Your task to perform on an android device: toggle pop-ups in chrome Image 0: 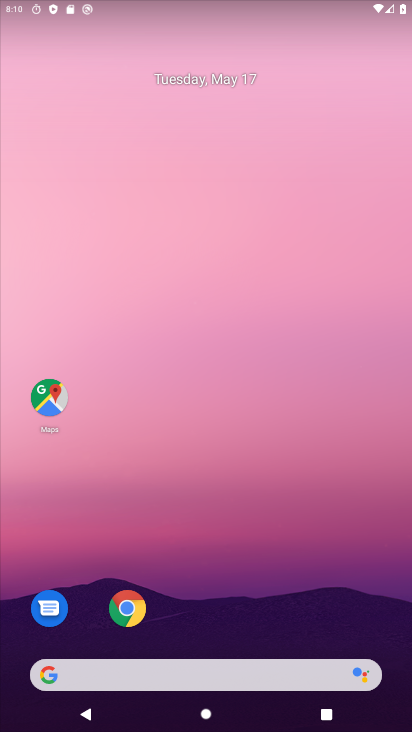
Step 0: drag from (307, 539) to (259, 127)
Your task to perform on an android device: toggle pop-ups in chrome Image 1: 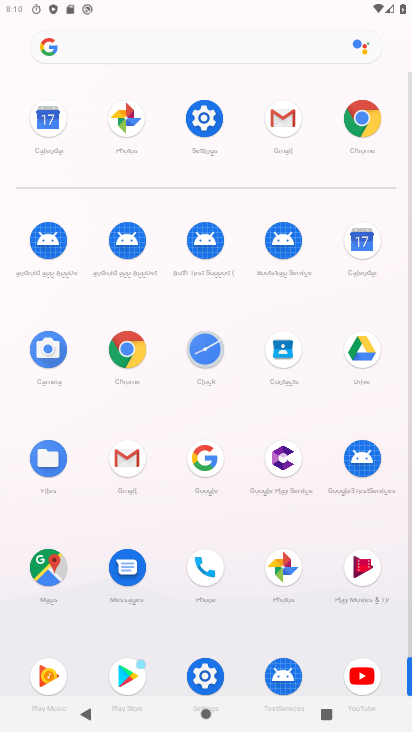
Step 1: click (127, 355)
Your task to perform on an android device: toggle pop-ups in chrome Image 2: 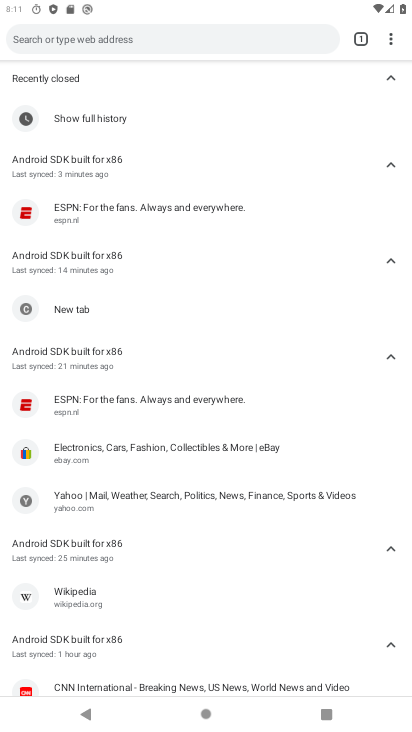
Step 2: press back button
Your task to perform on an android device: toggle pop-ups in chrome Image 3: 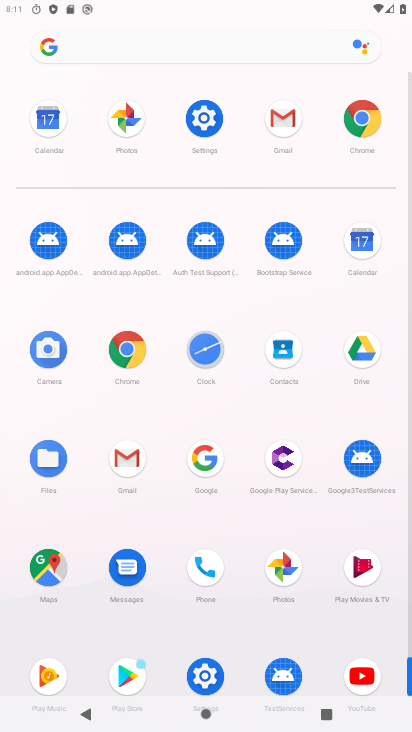
Step 3: click (361, 129)
Your task to perform on an android device: toggle pop-ups in chrome Image 4: 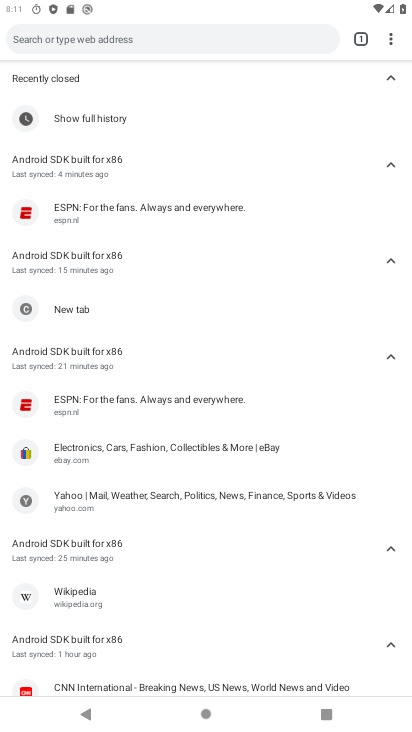
Step 4: drag from (396, 44) to (294, 324)
Your task to perform on an android device: toggle pop-ups in chrome Image 5: 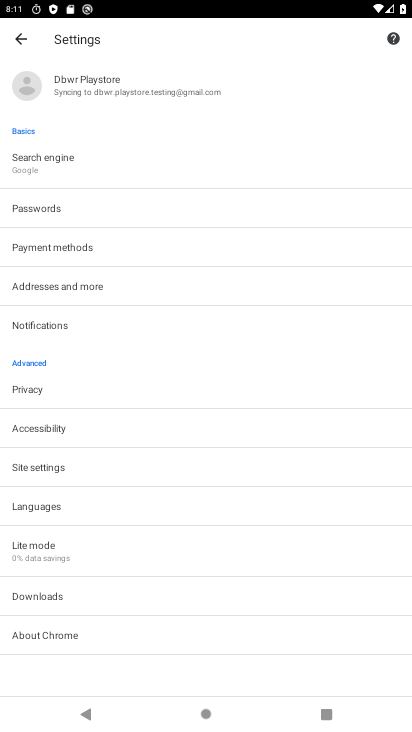
Step 5: drag from (199, 550) to (226, 313)
Your task to perform on an android device: toggle pop-ups in chrome Image 6: 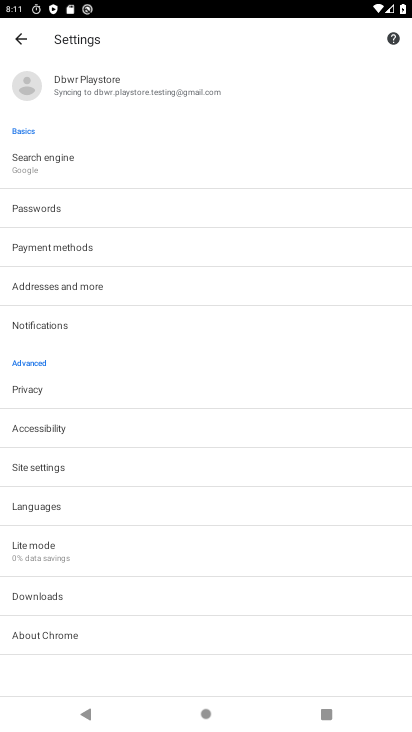
Step 6: click (108, 467)
Your task to perform on an android device: toggle pop-ups in chrome Image 7: 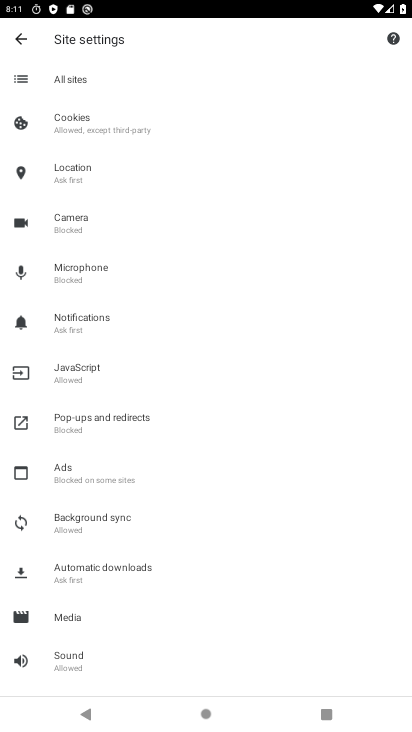
Step 7: click (161, 425)
Your task to perform on an android device: toggle pop-ups in chrome Image 8: 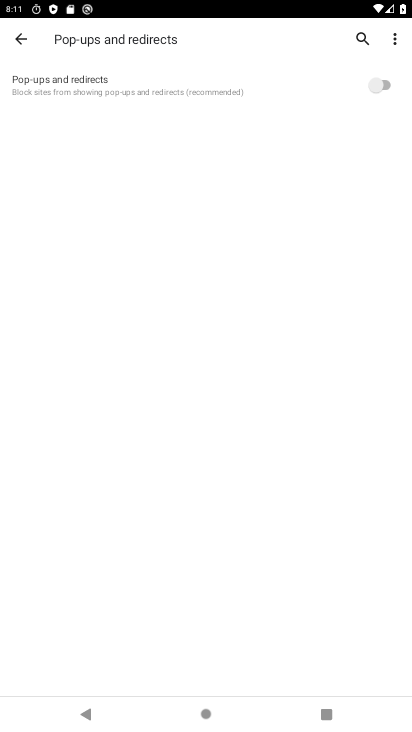
Step 8: click (384, 80)
Your task to perform on an android device: toggle pop-ups in chrome Image 9: 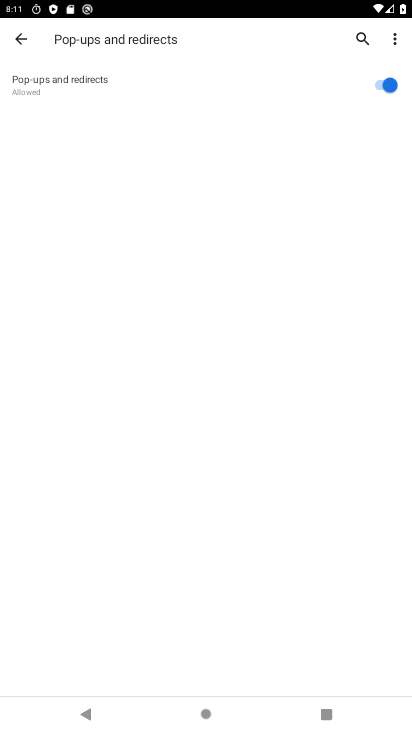
Step 9: task complete